Your task to perform on an android device: Clear the cart on amazon. Image 0: 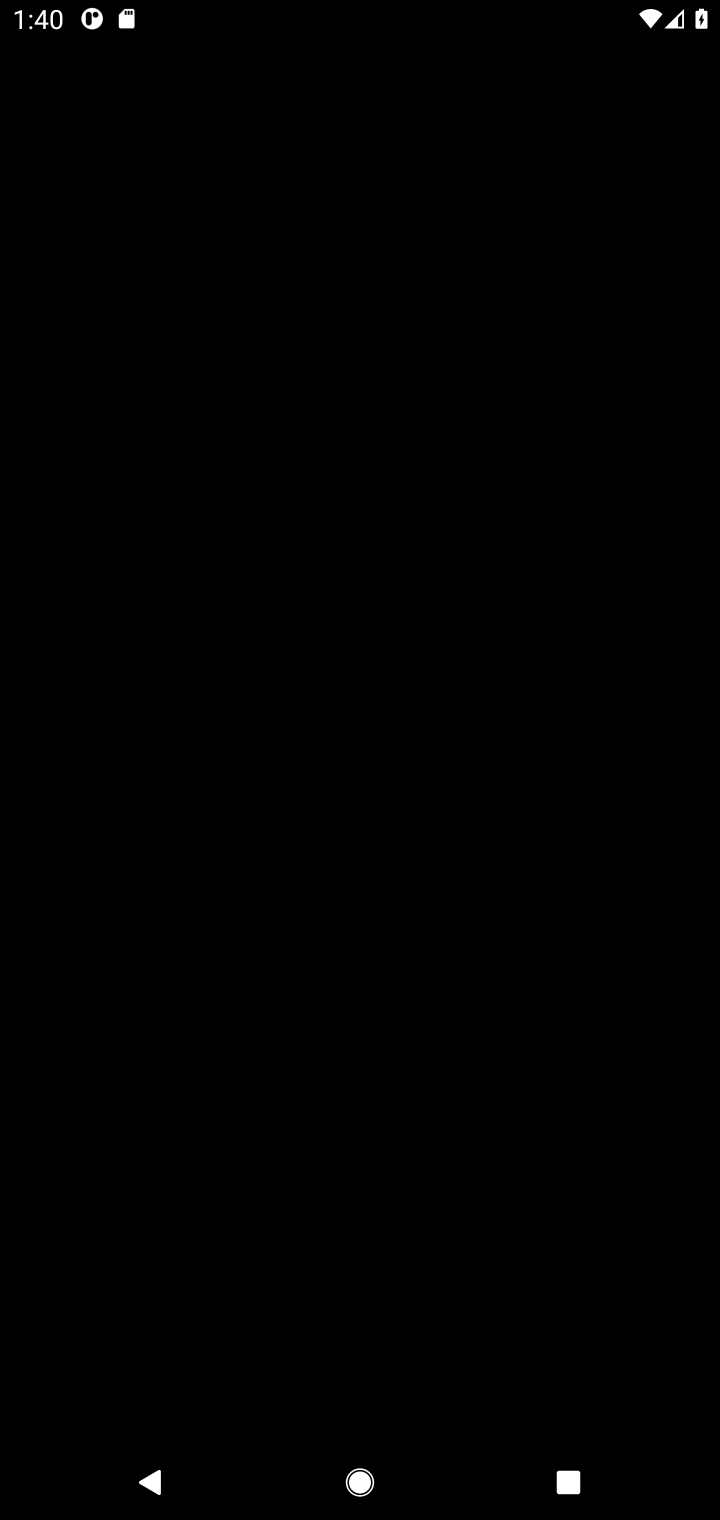
Step 0: press home button
Your task to perform on an android device: Clear the cart on amazon. Image 1: 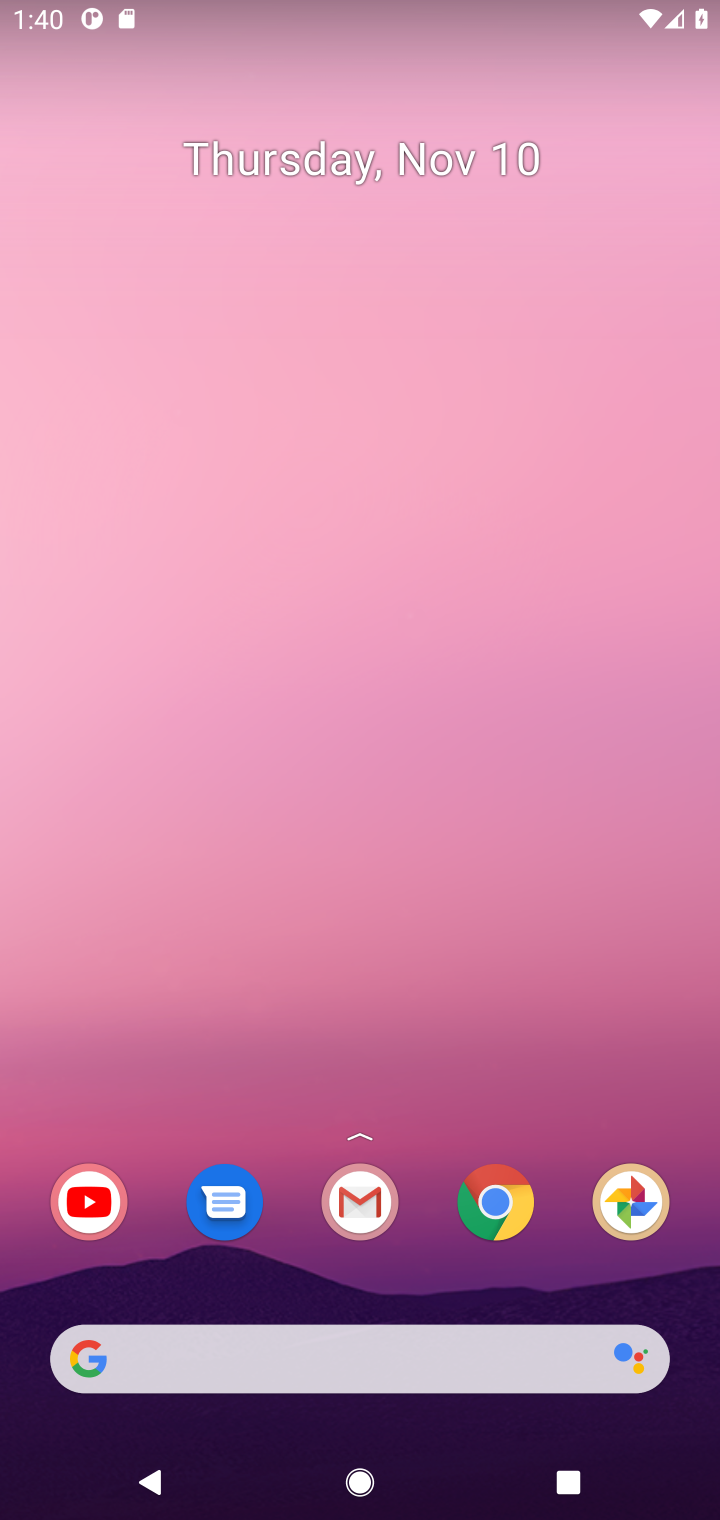
Step 1: press home button
Your task to perform on an android device: Clear the cart on amazon. Image 2: 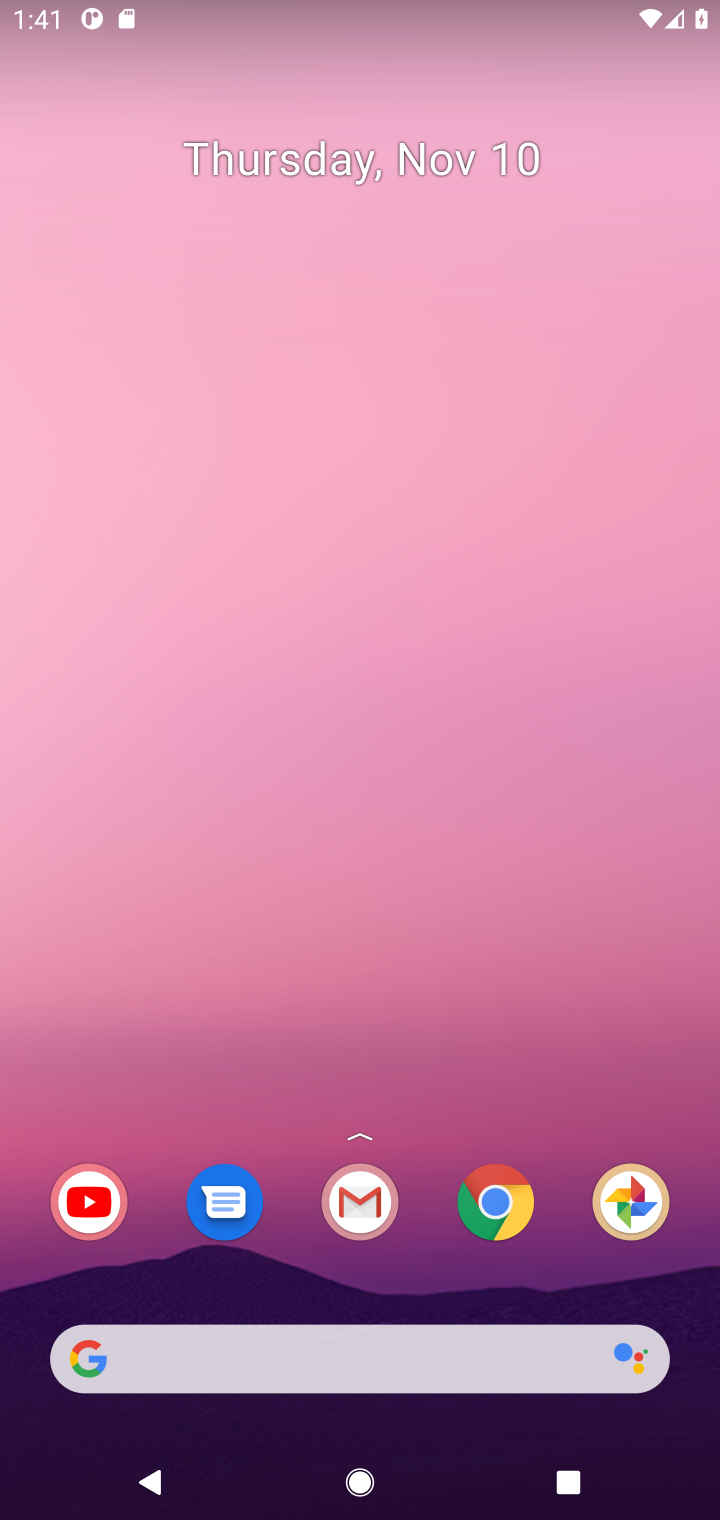
Step 2: click (502, 1206)
Your task to perform on an android device: Clear the cart on amazon. Image 3: 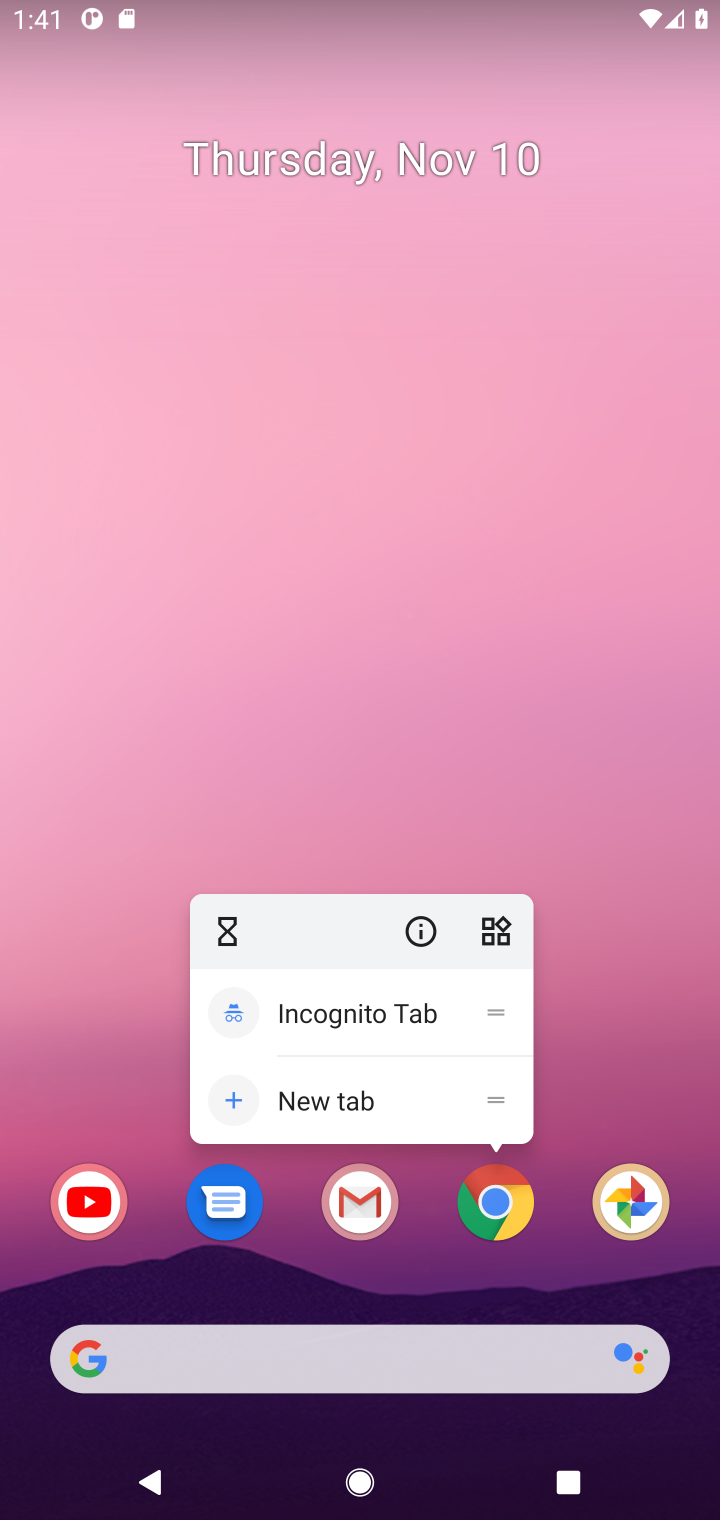
Step 3: click (487, 1198)
Your task to perform on an android device: Clear the cart on amazon. Image 4: 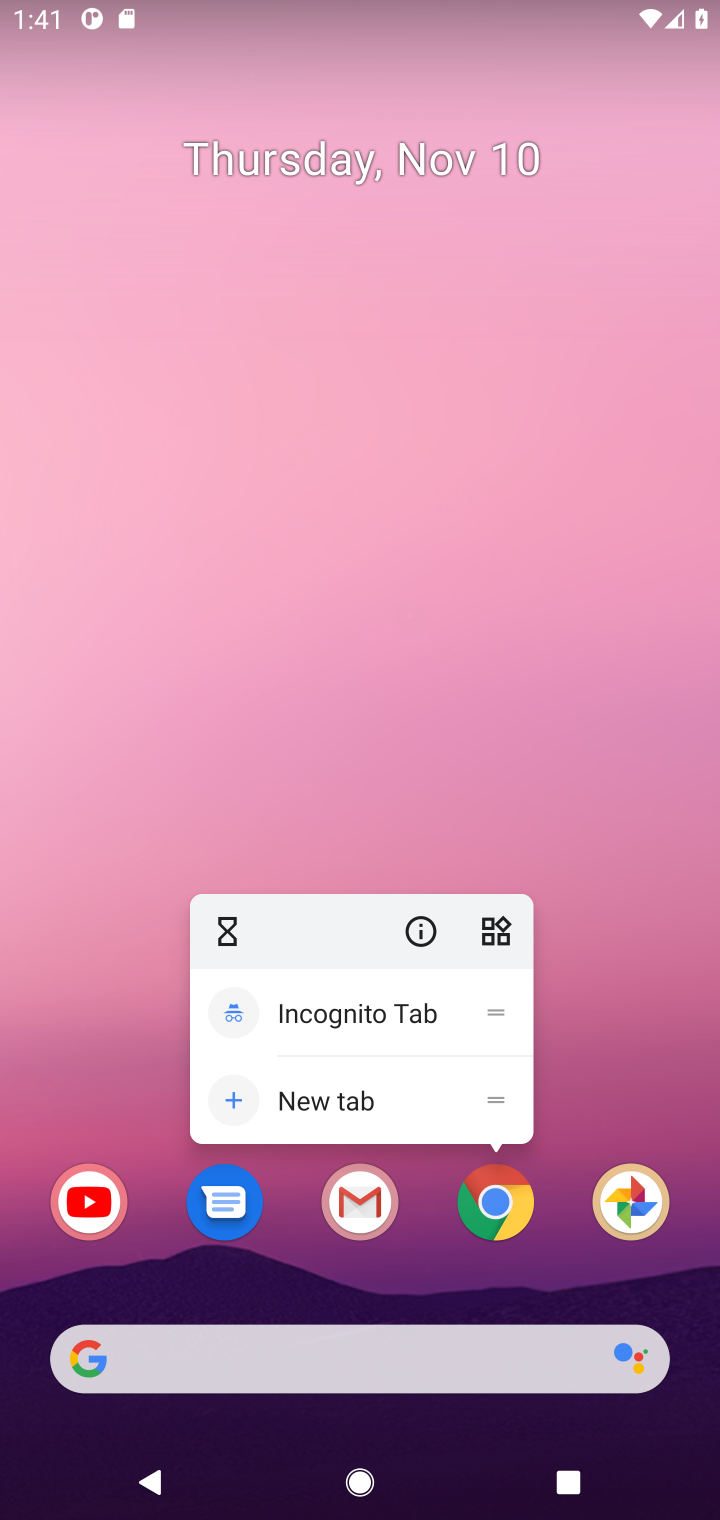
Step 4: click (487, 1196)
Your task to perform on an android device: Clear the cart on amazon. Image 5: 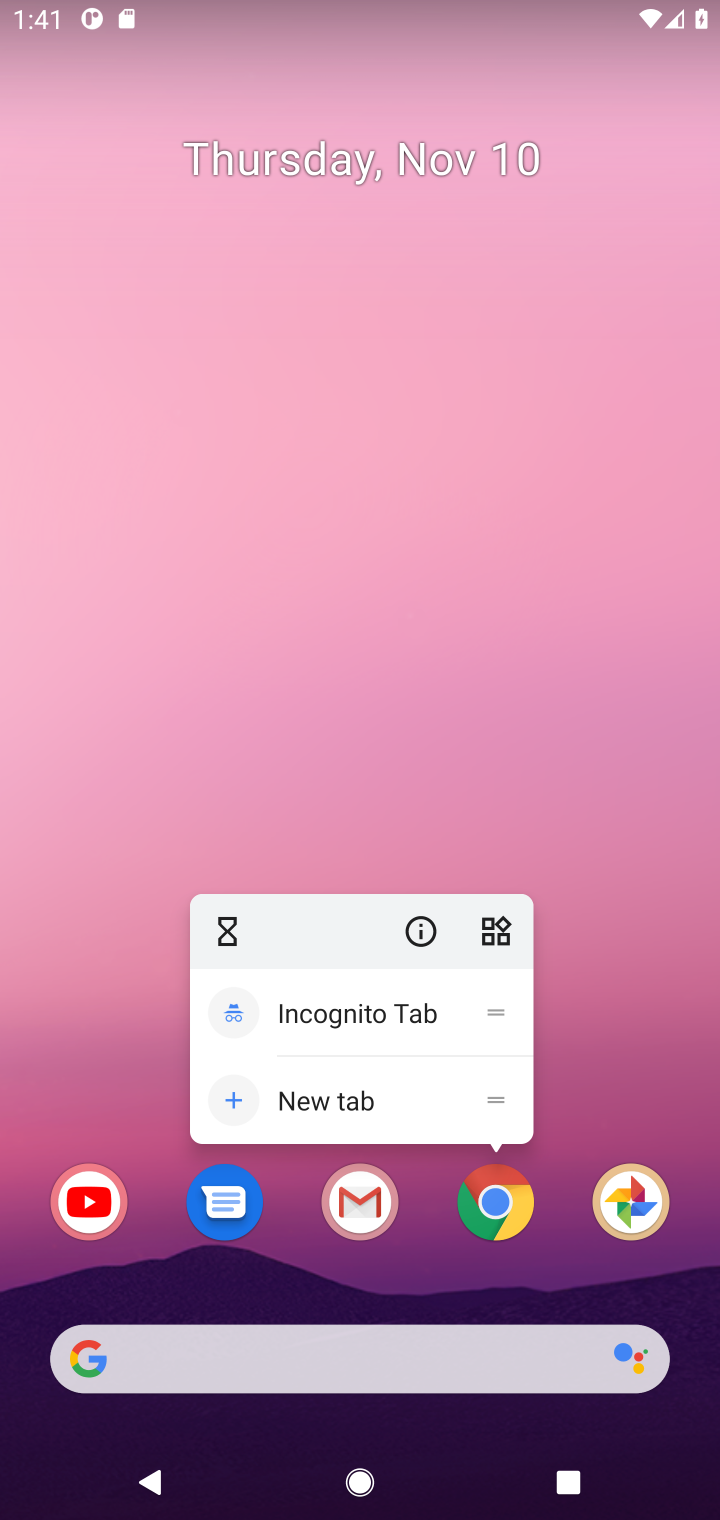
Step 5: click (487, 1198)
Your task to perform on an android device: Clear the cart on amazon. Image 6: 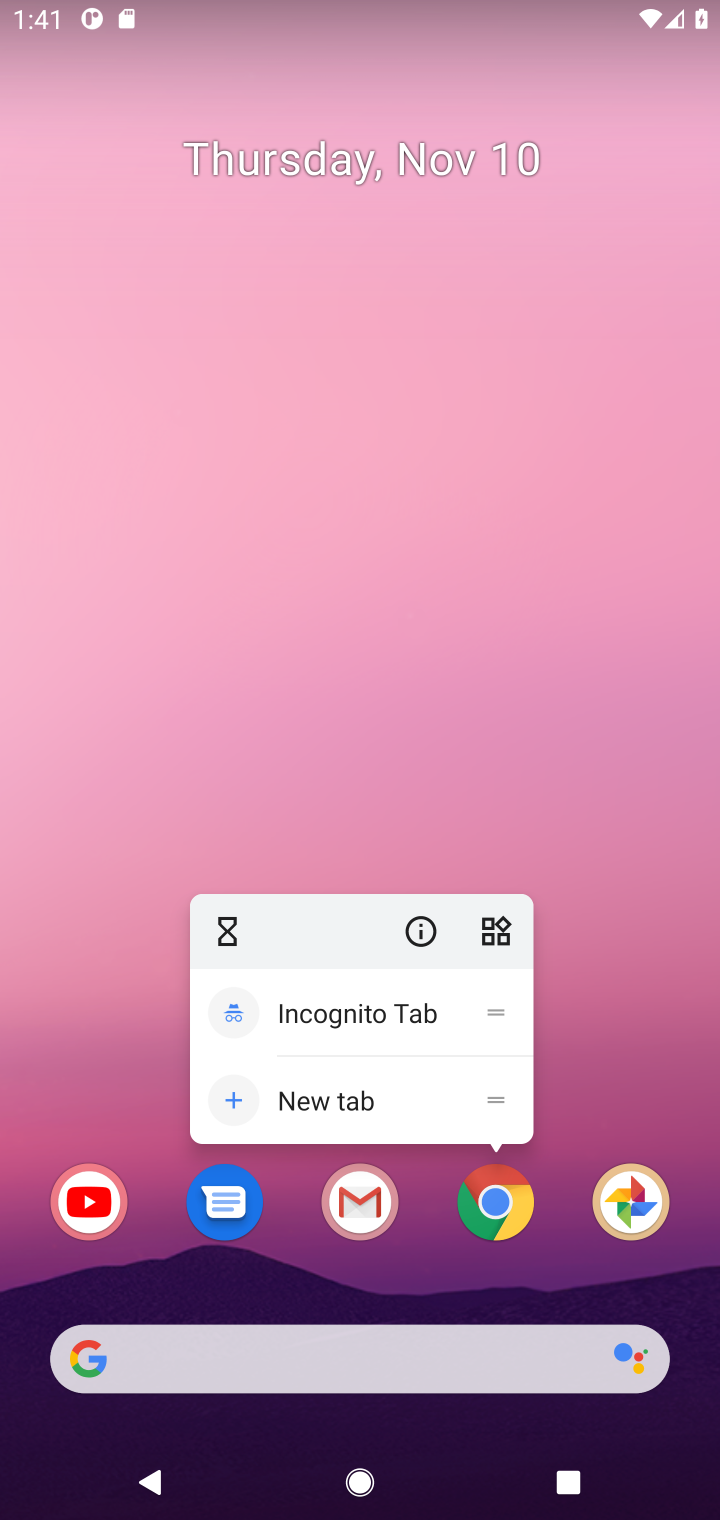
Step 6: click (505, 1185)
Your task to perform on an android device: Clear the cart on amazon. Image 7: 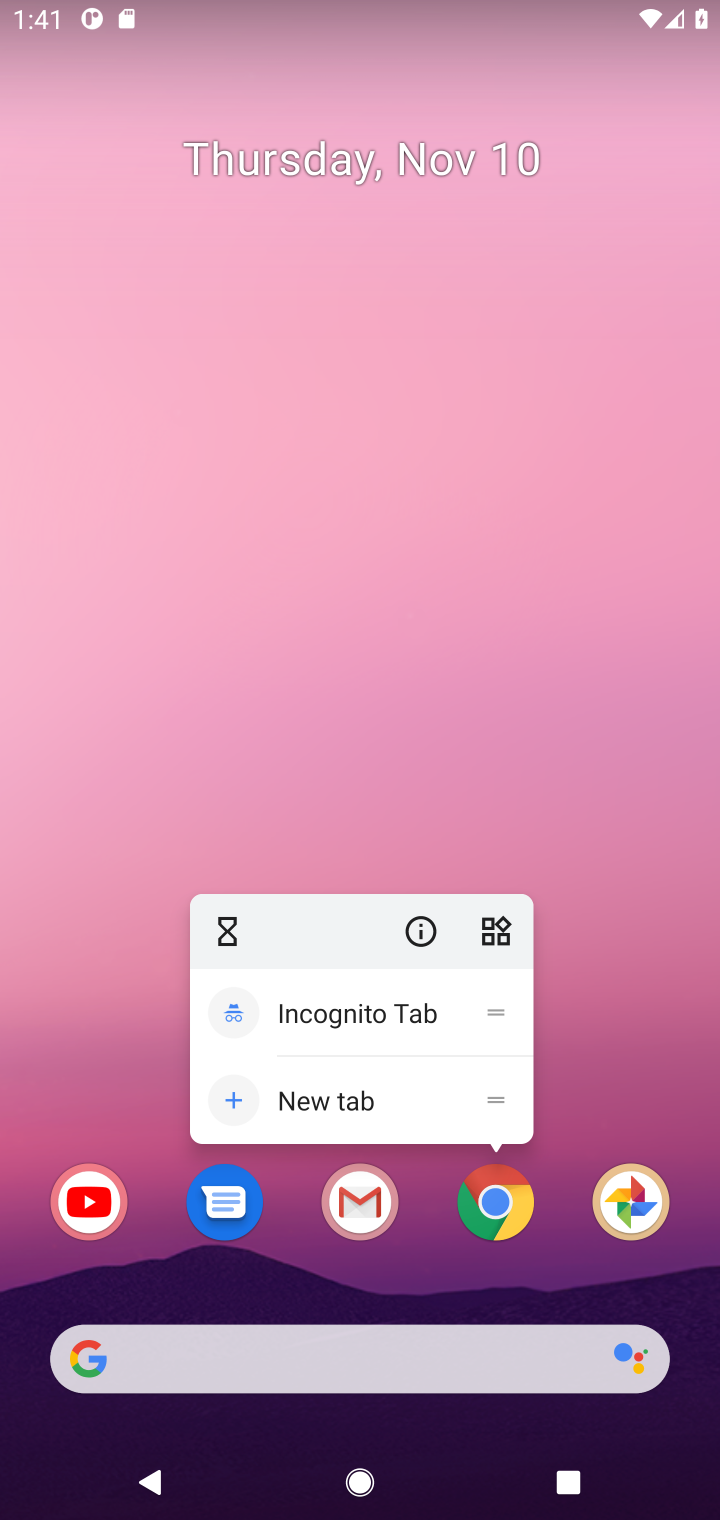
Step 7: click (505, 1189)
Your task to perform on an android device: Clear the cart on amazon. Image 8: 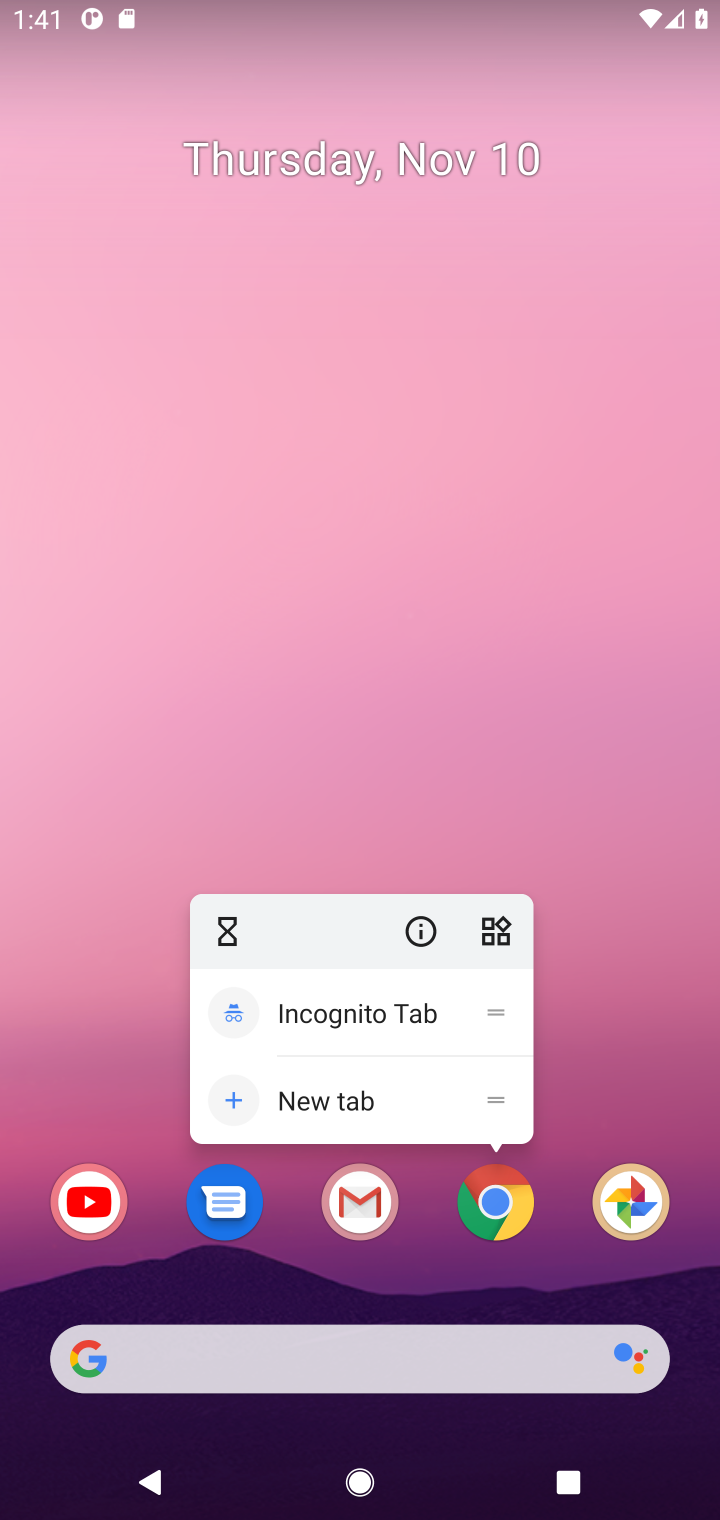
Step 8: click (496, 1207)
Your task to perform on an android device: Clear the cart on amazon. Image 9: 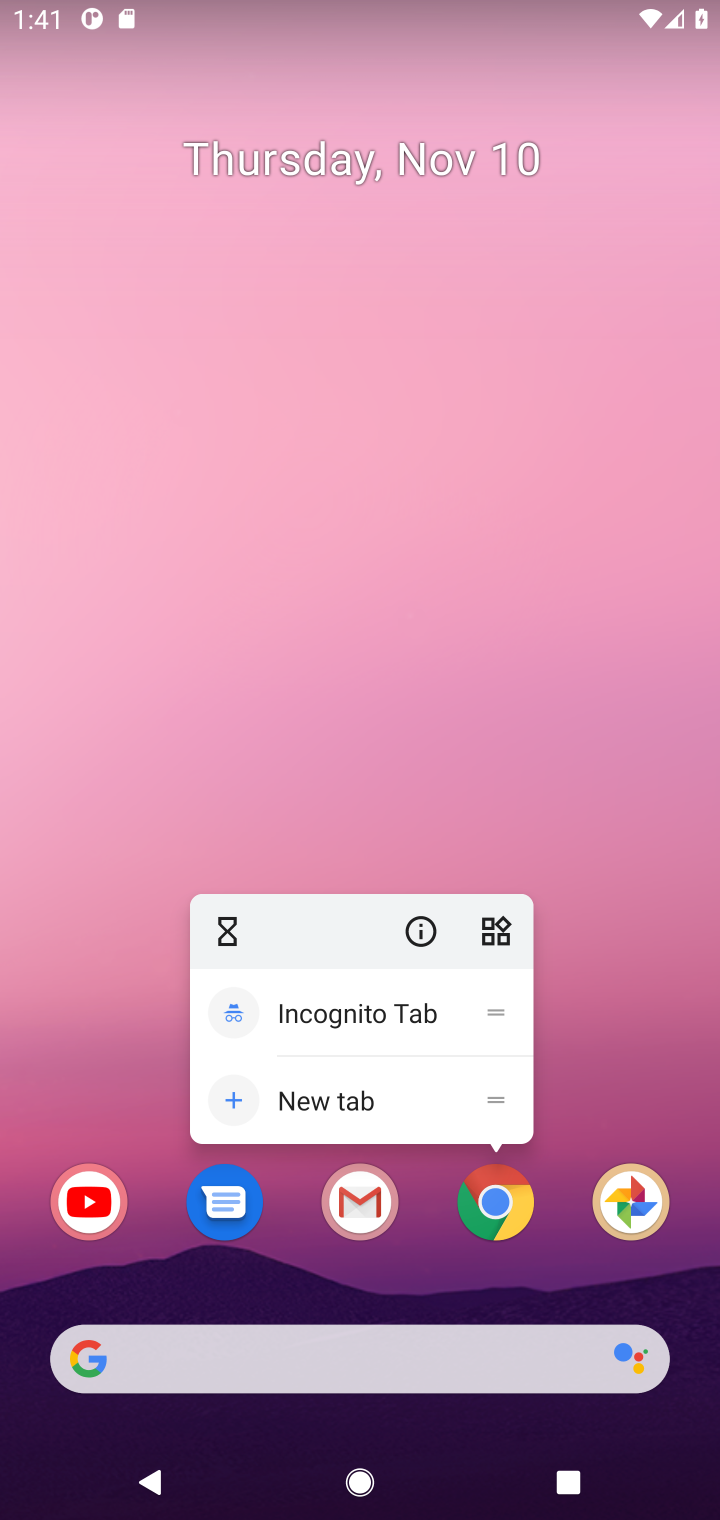
Step 9: click (496, 1207)
Your task to perform on an android device: Clear the cart on amazon. Image 10: 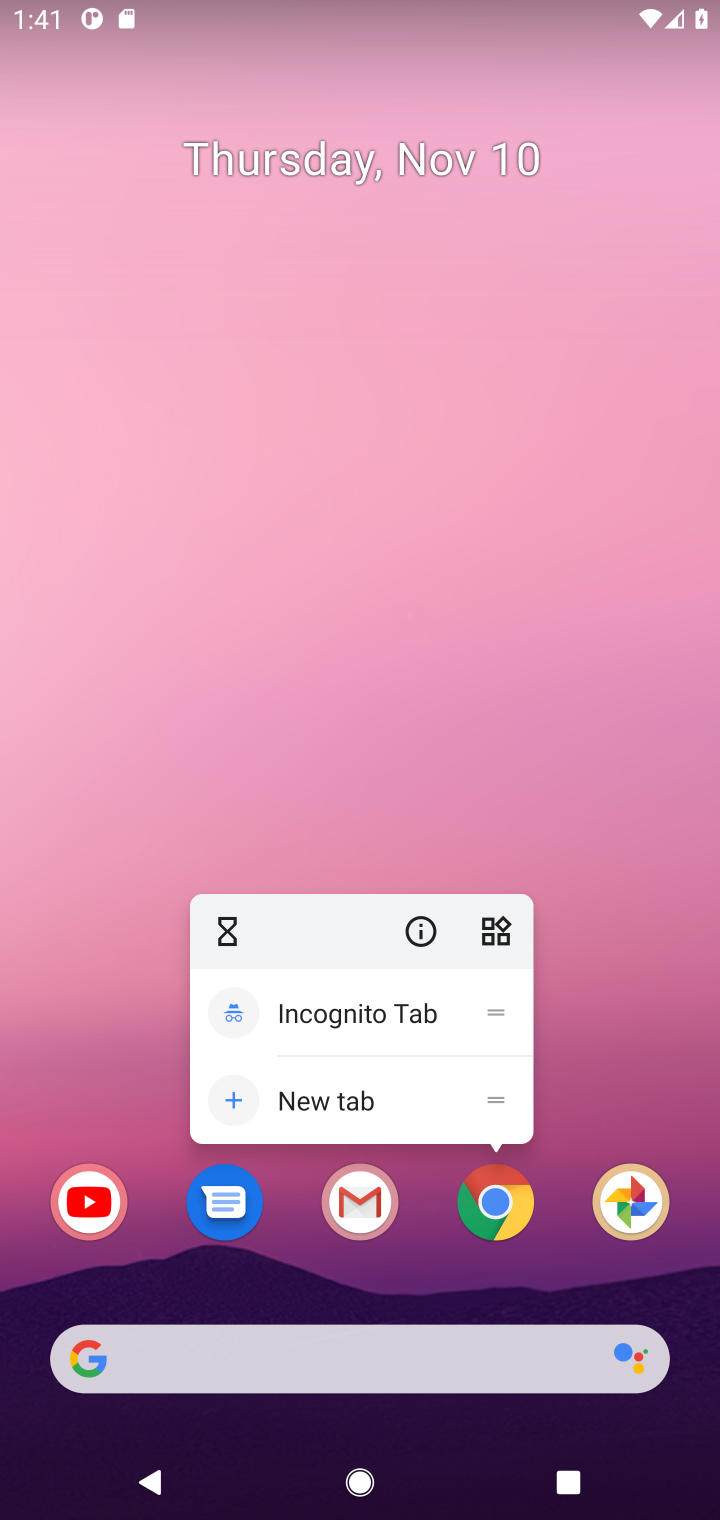
Step 10: click (496, 1207)
Your task to perform on an android device: Clear the cart on amazon. Image 11: 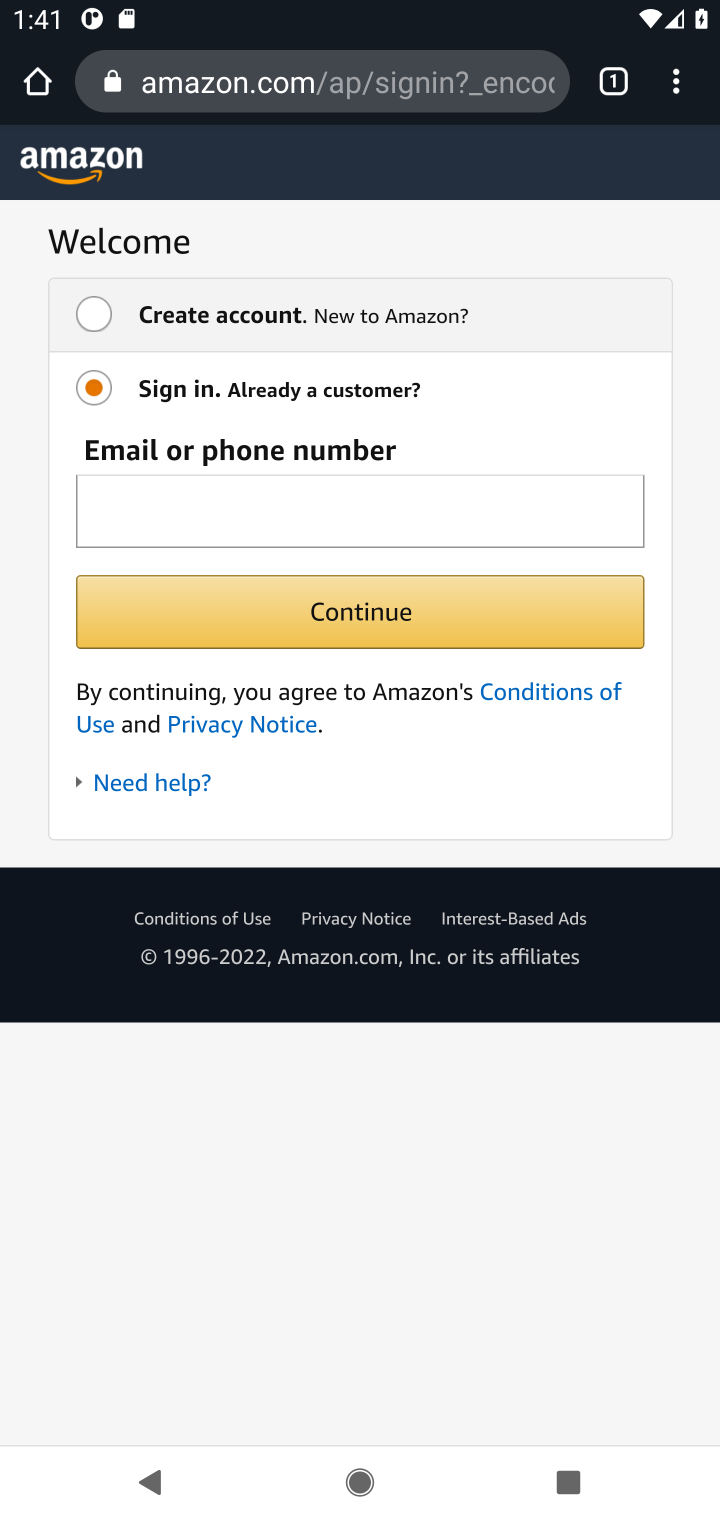
Step 11: click (366, 86)
Your task to perform on an android device: Clear the cart on amazon. Image 12: 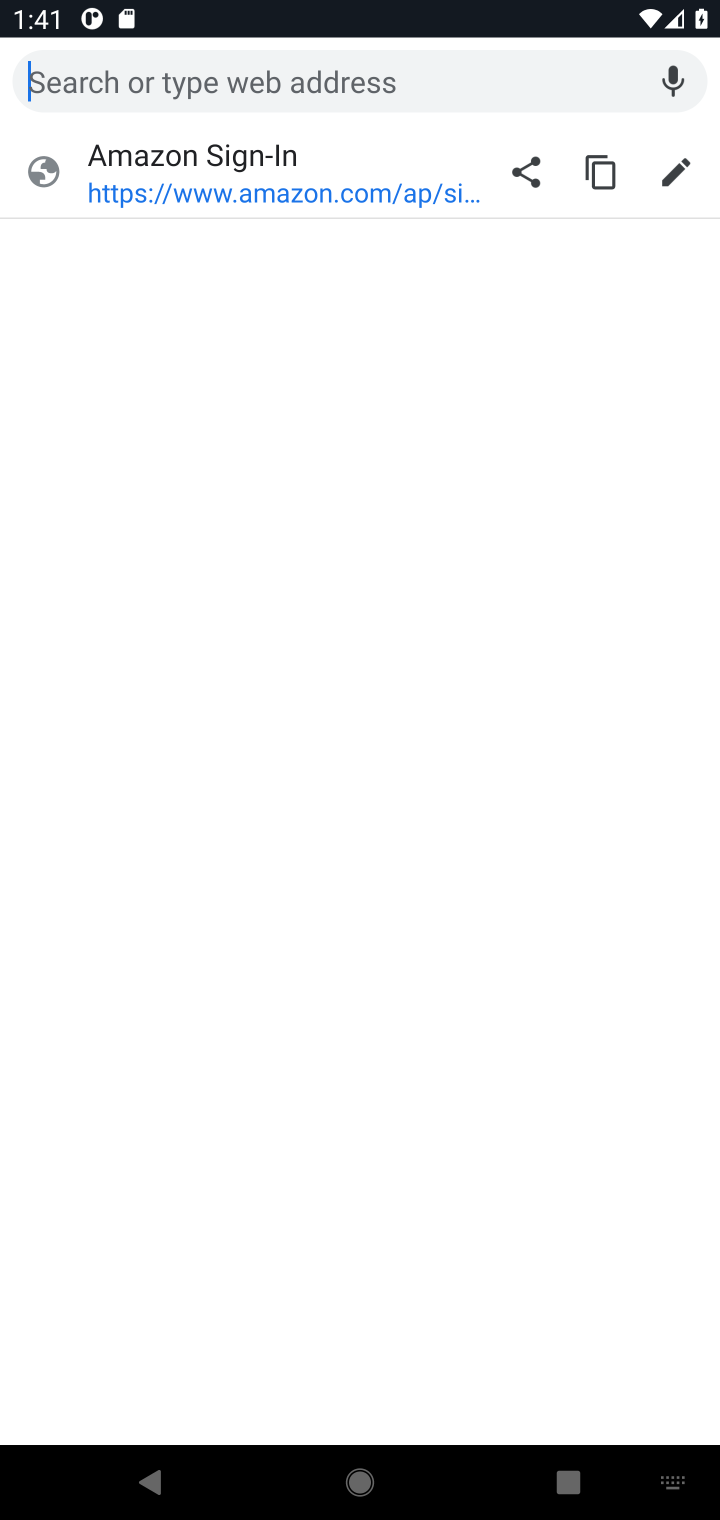
Step 12: click (105, 180)
Your task to perform on an android device: Clear the cart on amazon. Image 13: 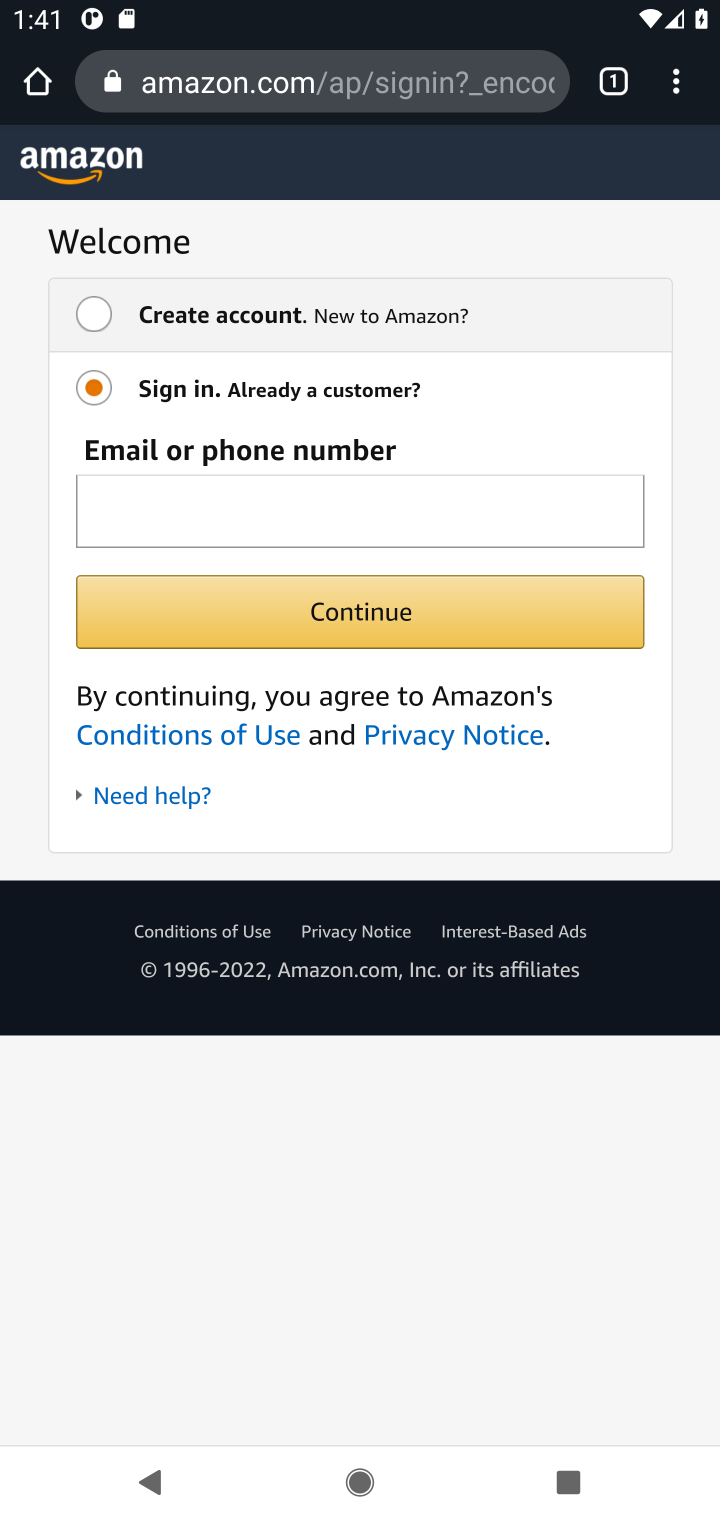
Step 13: press back button
Your task to perform on an android device: Clear the cart on amazon. Image 14: 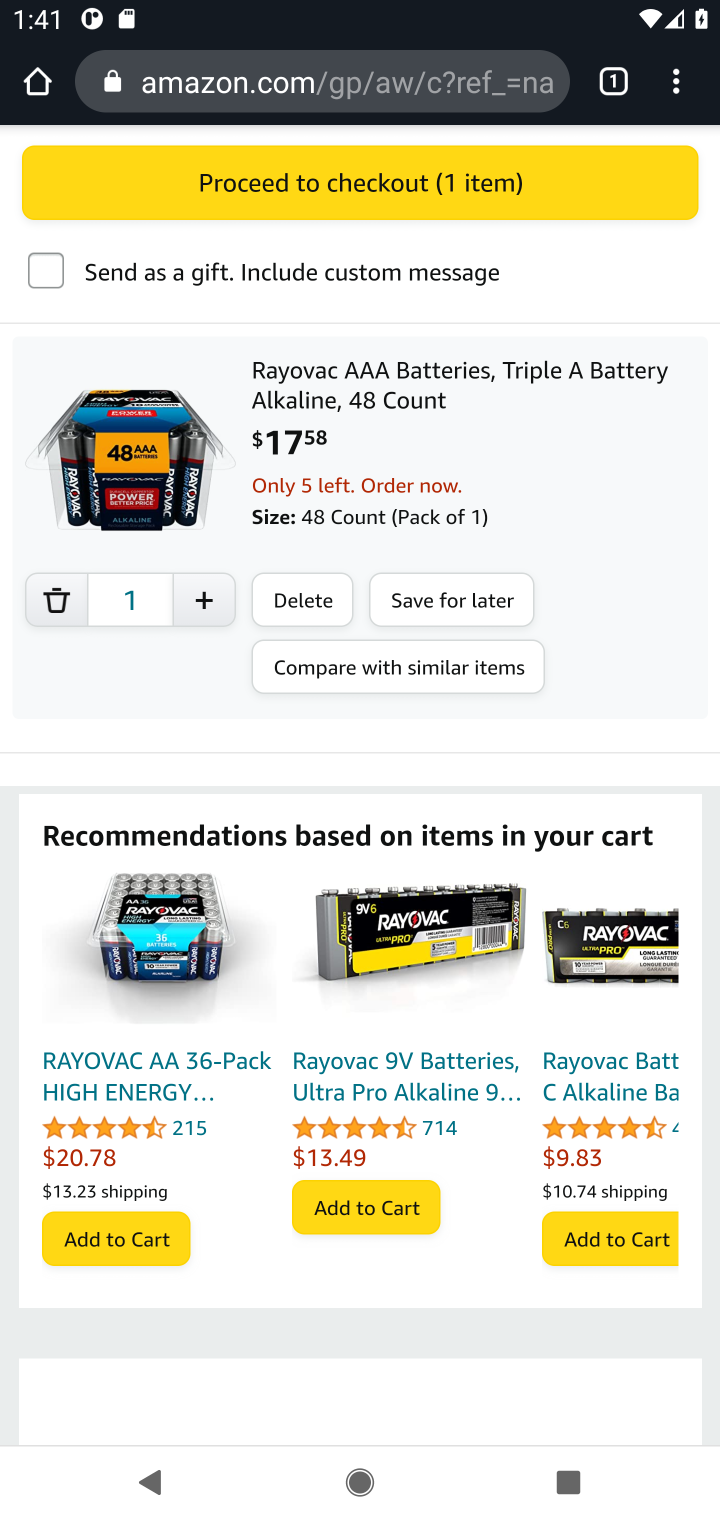
Step 14: click (311, 604)
Your task to perform on an android device: Clear the cart on amazon. Image 15: 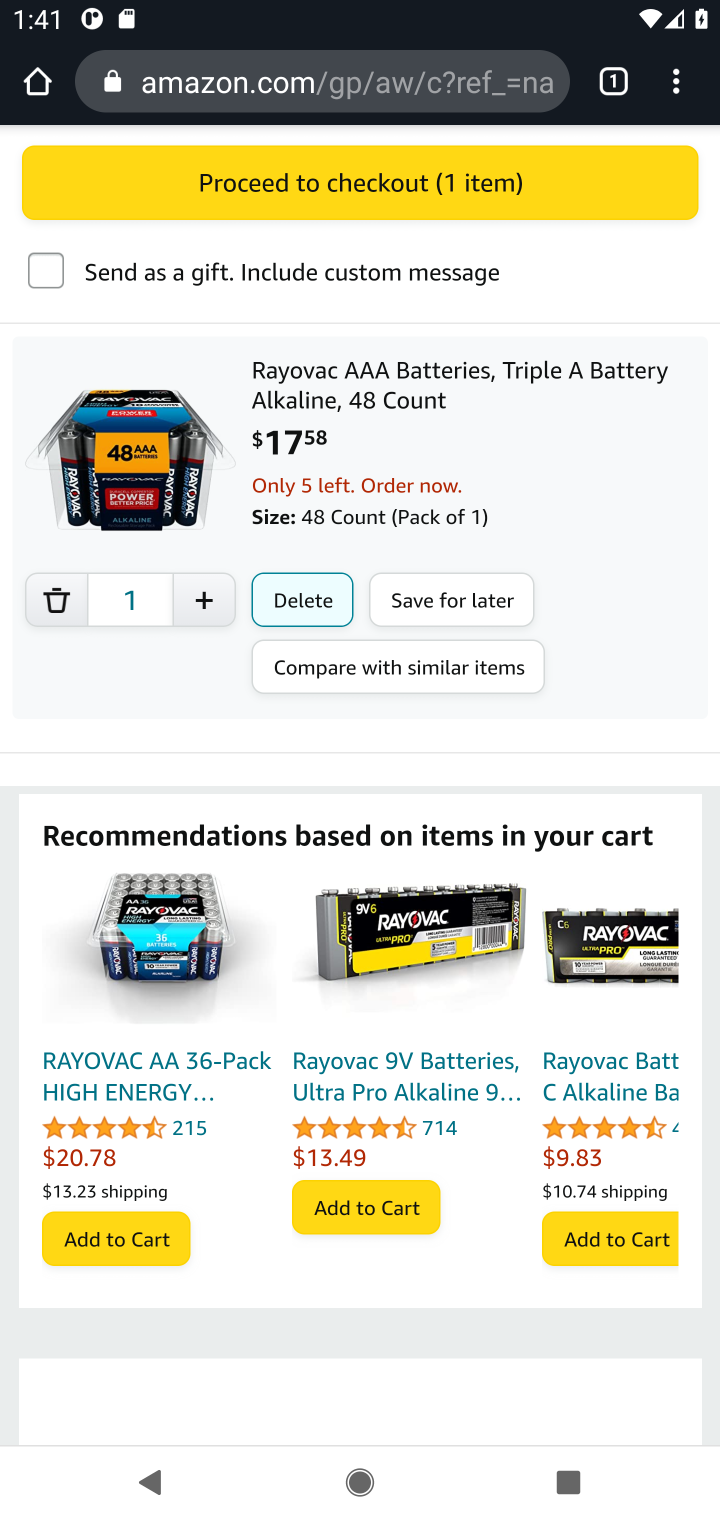
Step 15: click (305, 595)
Your task to perform on an android device: Clear the cart on amazon. Image 16: 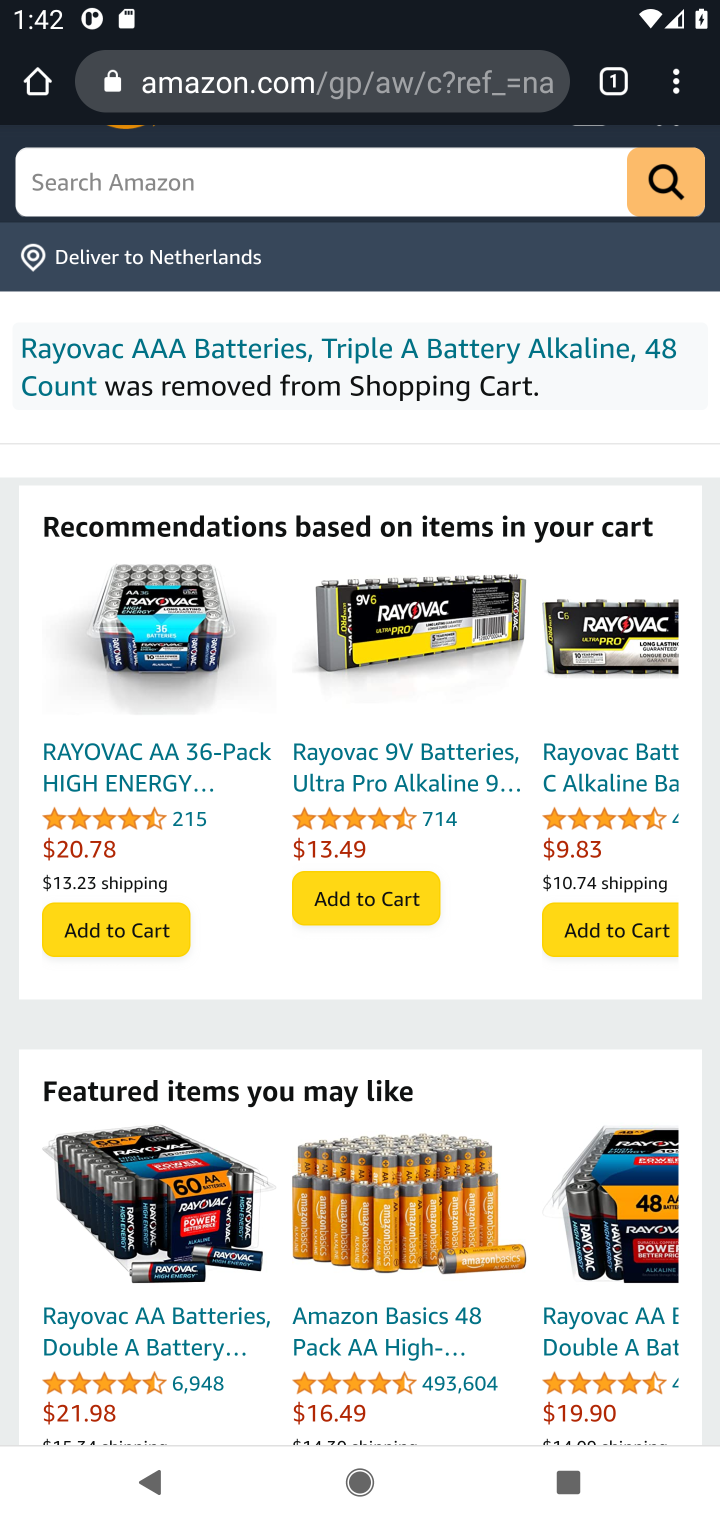
Step 16: task complete